Your task to perform on an android device: Go to privacy settings Image 0: 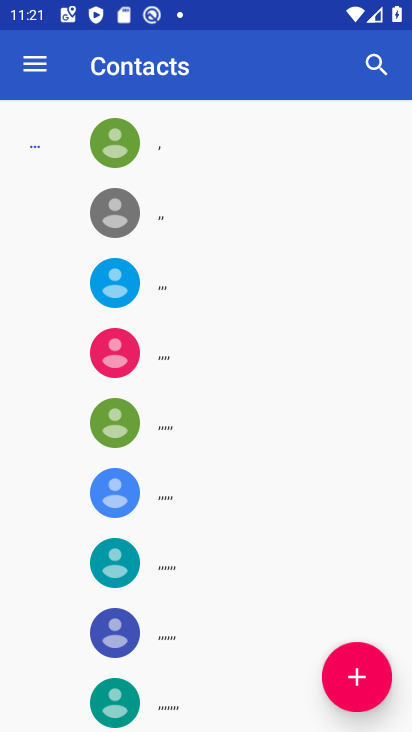
Step 0: press home button
Your task to perform on an android device: Go to privacy settings Image 1: 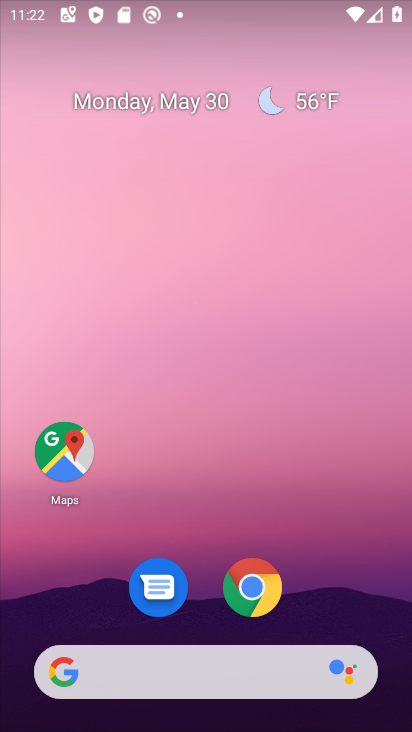
Step 1: drag from (317, 619) to (179, 42)
Your task to perform on an android device: Go to privacy settings Image 2: 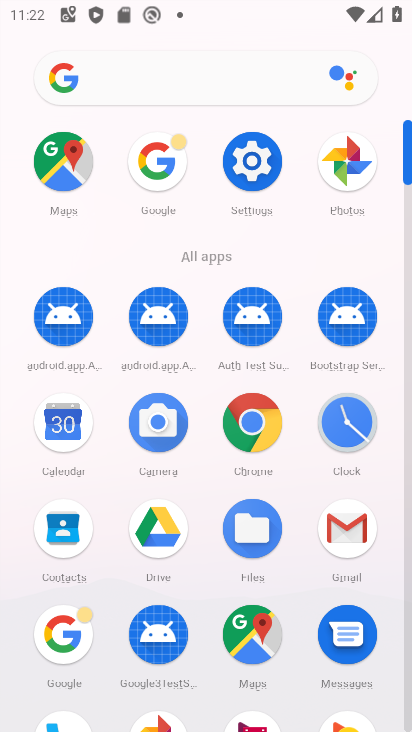
Step 2: click (258, 164)
Your task to perform on an android device: Go to privacy settings Image 3: 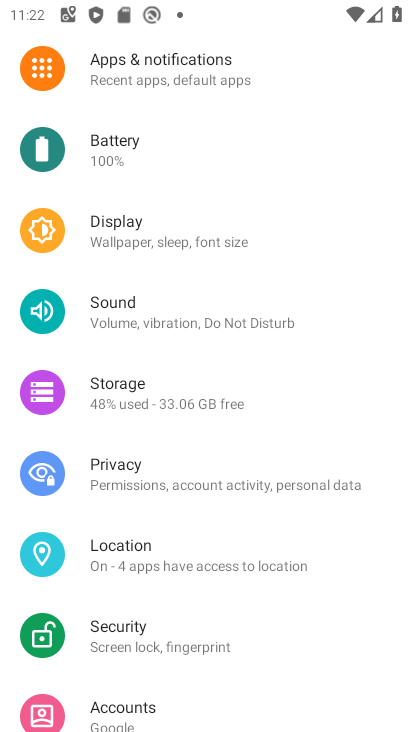
Step 3: click (122, 467)
Your task to perform on an android device: Go to privacy settings Image 4: 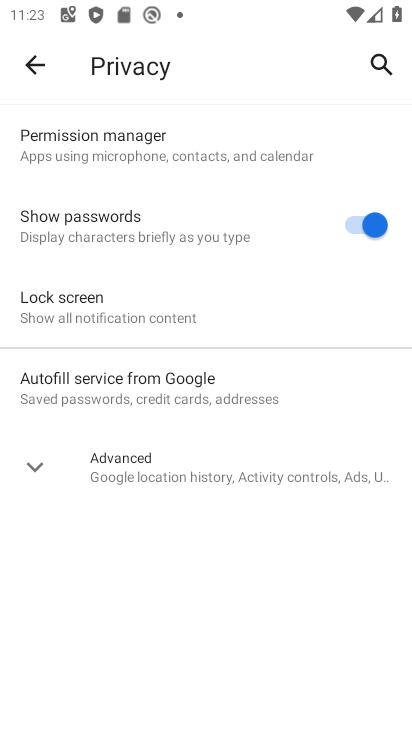
Step 4: task complete